Your task to perform on an android device: clear all cookies in the chrome app Image 0: 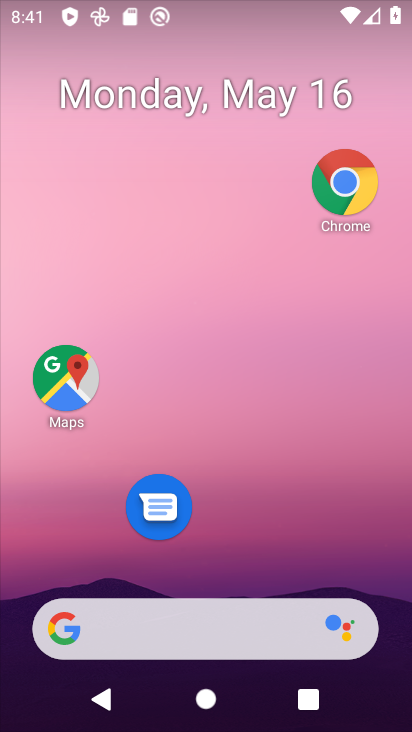
Step 0: click (345, 187)
Your task to perform on an android device: clear all cookies in the chrome app Image 1: 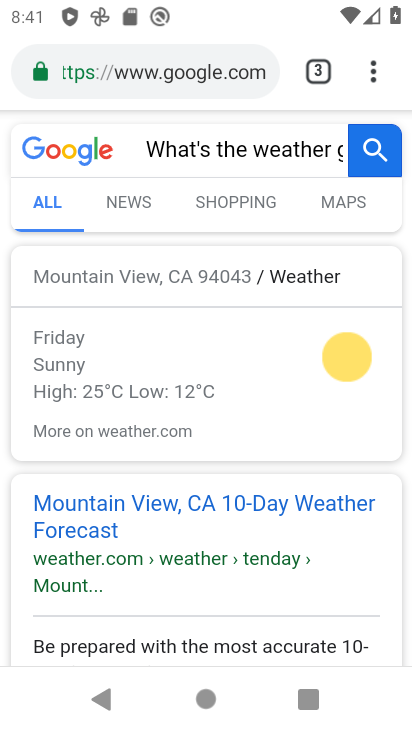
Step 1: drag from (374, 67) to (125, 491)
Your task to perform on an android device: clear all cookies in the chrome app Image 2: 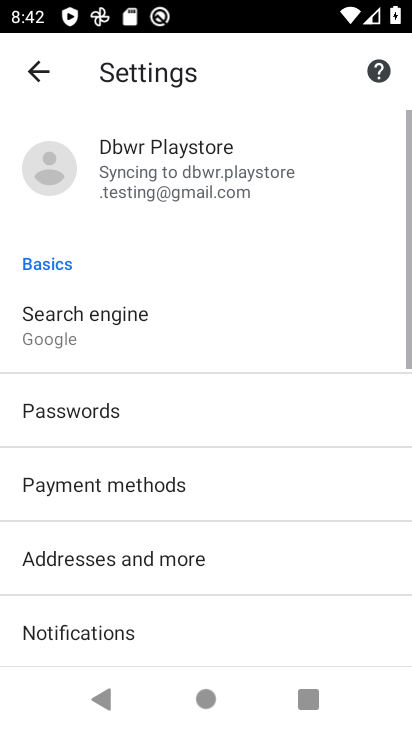
Step 2: drag from (226, 617) to (274, 255)
Your task to perform on an android device: clear all cookies in the chrome app Image 3: 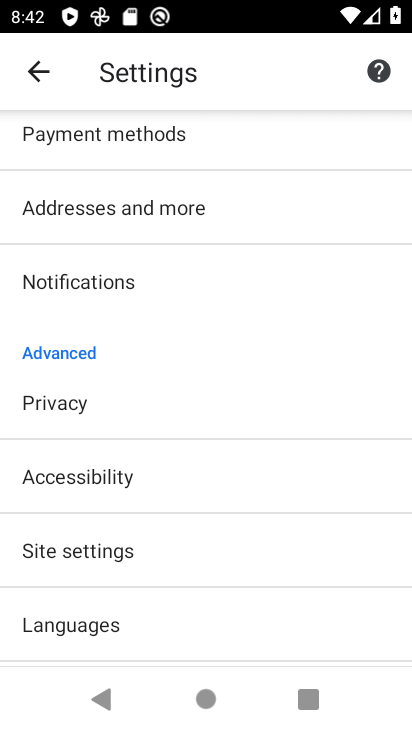
Step 3: click (48, 408)
Your task to perform on an android device: clear all cookies in the chrome app Image 4: 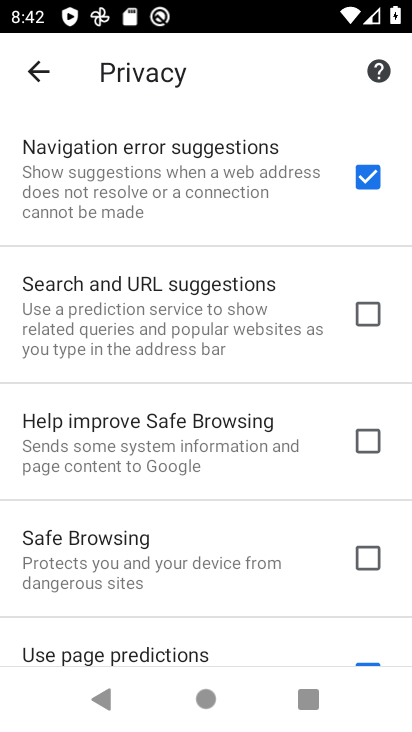
Step 4: drag from (264, 586) to (279, 47)
Your task to perform on an android device: clear all cookies in the chrome app Image 5: 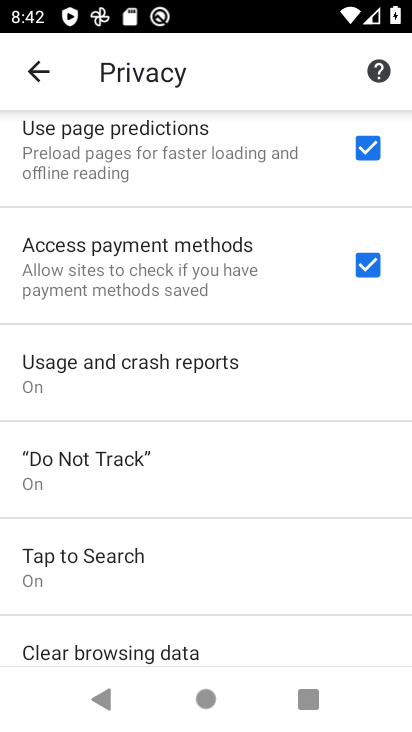
Step 5: drag from (255, 598) to (298, 112)
Your task to perform on an android device: clear all cookies in the chrome app Image 6: 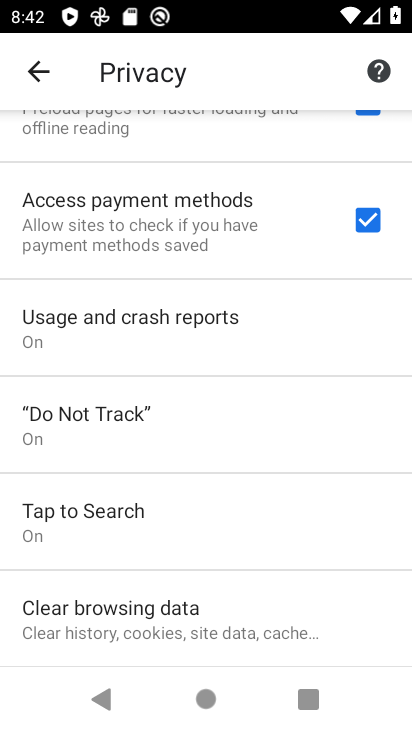
Step 6: click (70, 628)
Your task to perform on an android device: clear all cookies in the chrome app Image 7: 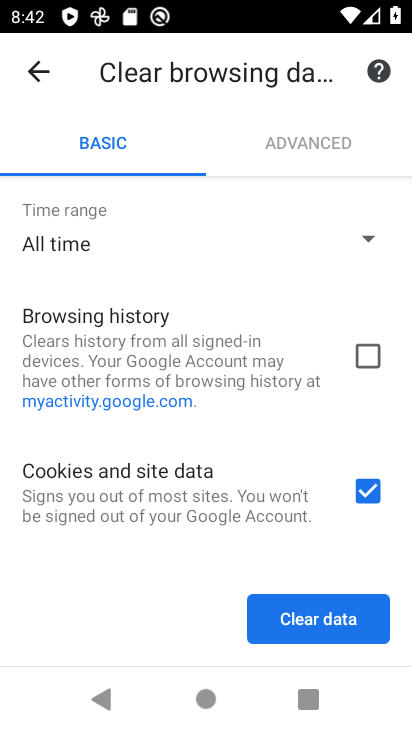
Step 7: click (321, 614)
Your task to perform on an android device: clear all cookies in the chrome app Image 8: 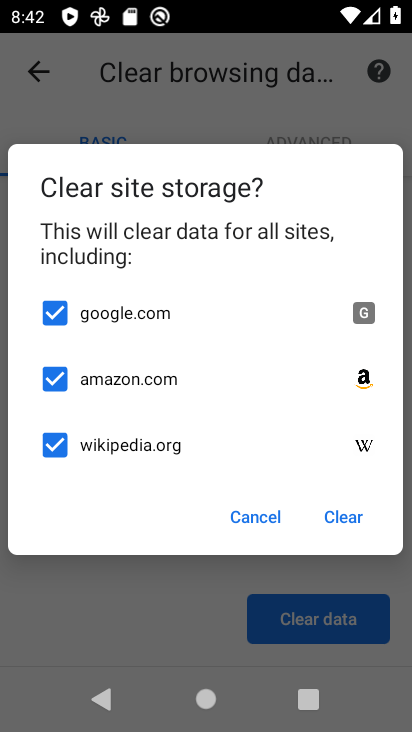
Step 8: click (356, 515)
Your task to perform on an android device: clear all cookies in the chrome app Image 9: 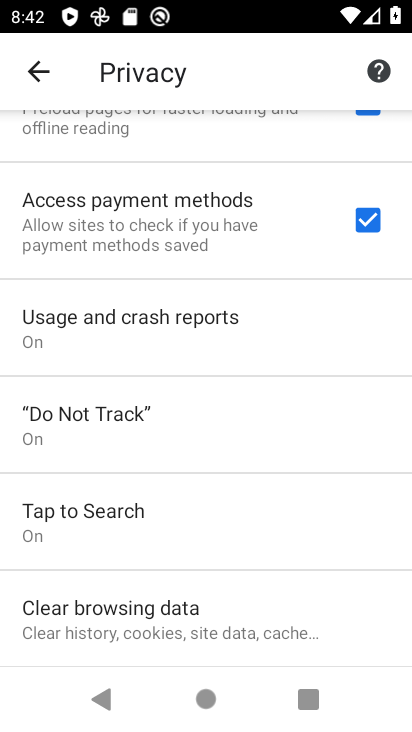
Step 9: task complete